Your task to perform on an android device: delete the emails in spam in the gmail app Image 0: 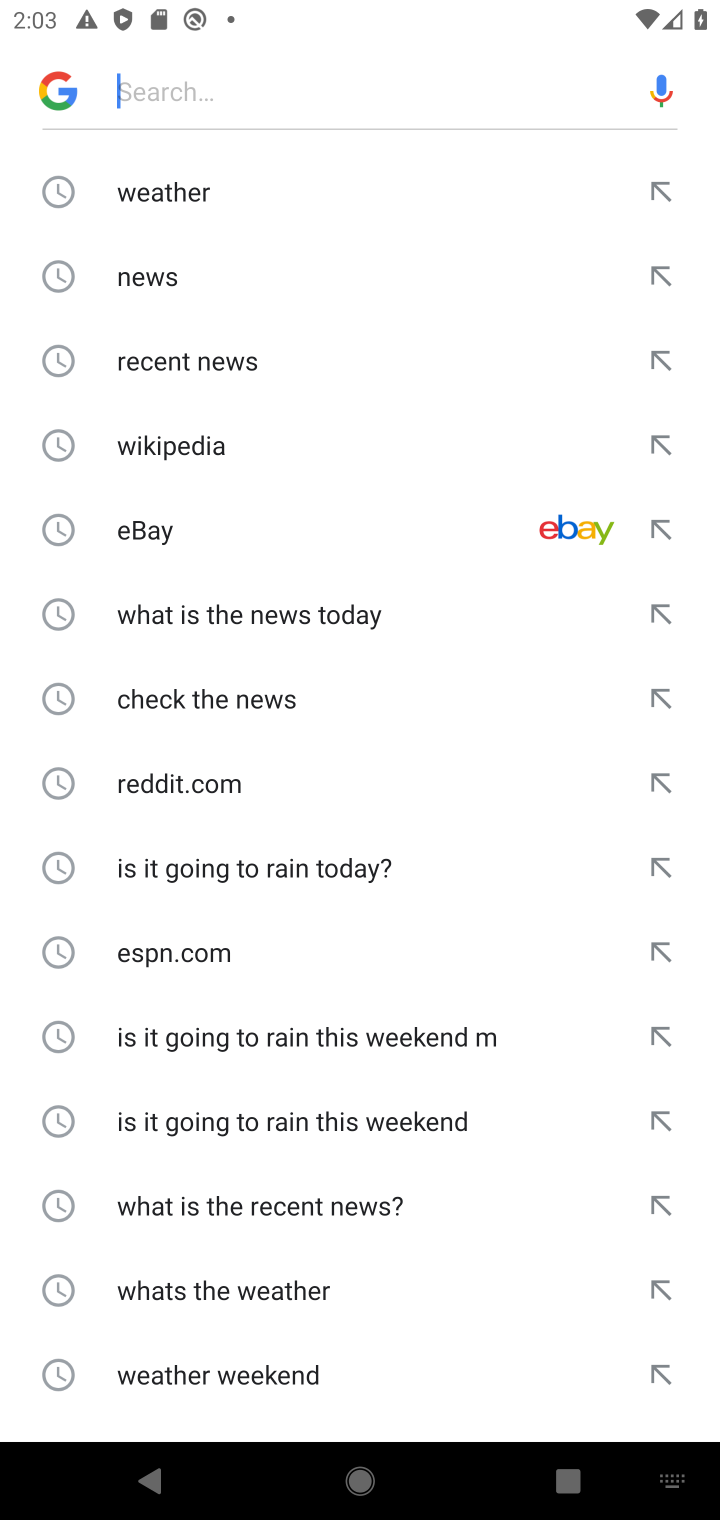
Step 0: press back button
Your task to perform on an android device: delete the emails in spam in the gmail app Image 1: 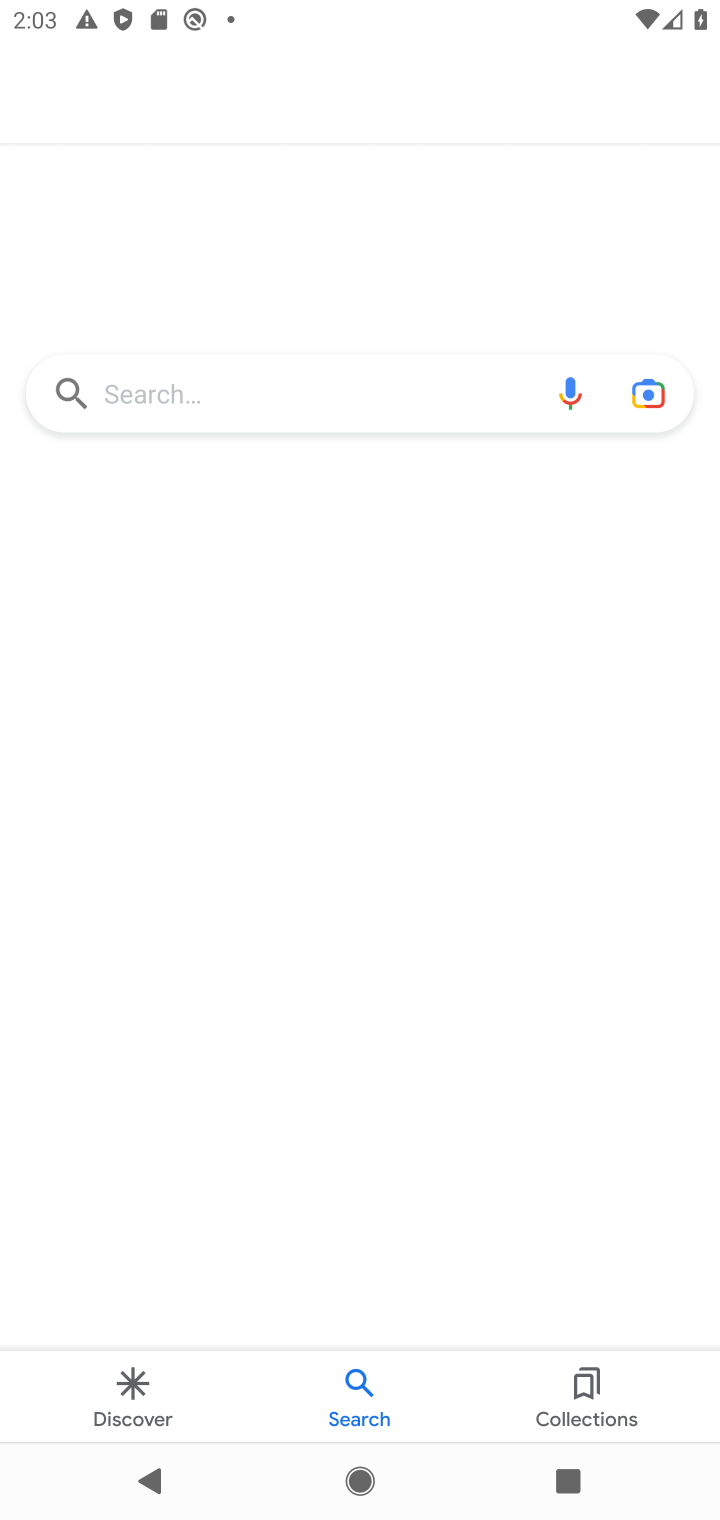
Step 1: click (235, 375)
Your task to perform on an android device: delete the emails in spam in the gmail app Image 2: 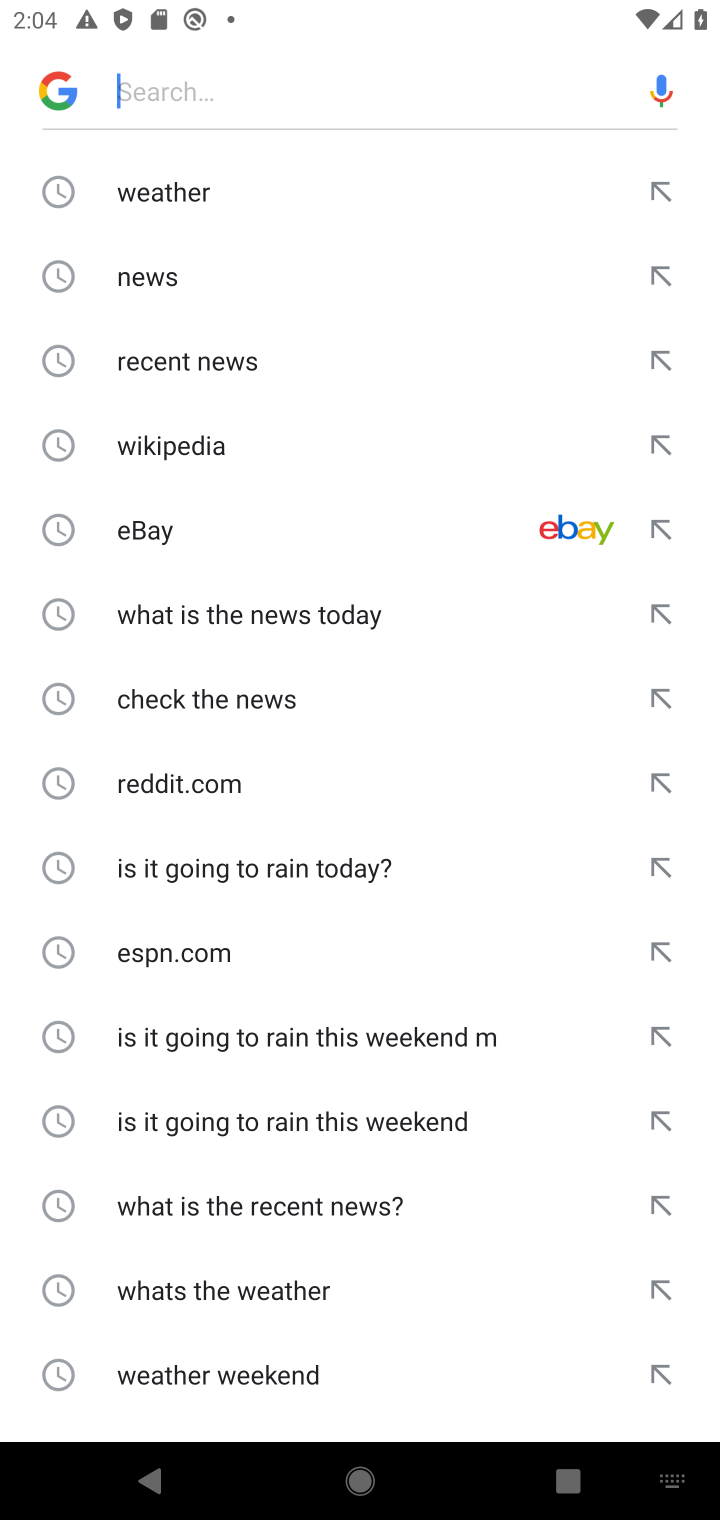
Step 2: press back button
Your task to perform on an android device: delete the emails in spam in the gmail app Image 3: 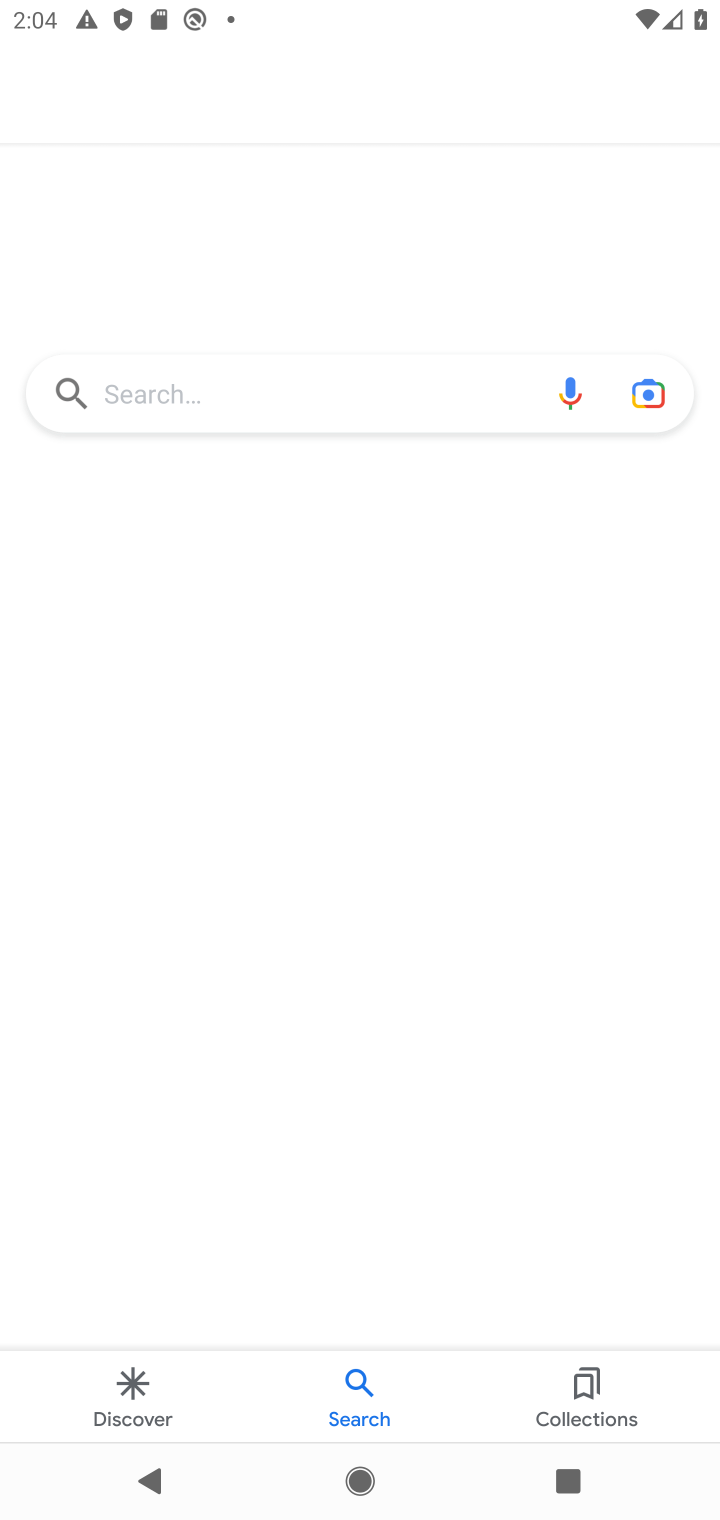
Step 3: press back button
Your task to perform on an android device: delete the emails in spam in the gmail app Image 4: 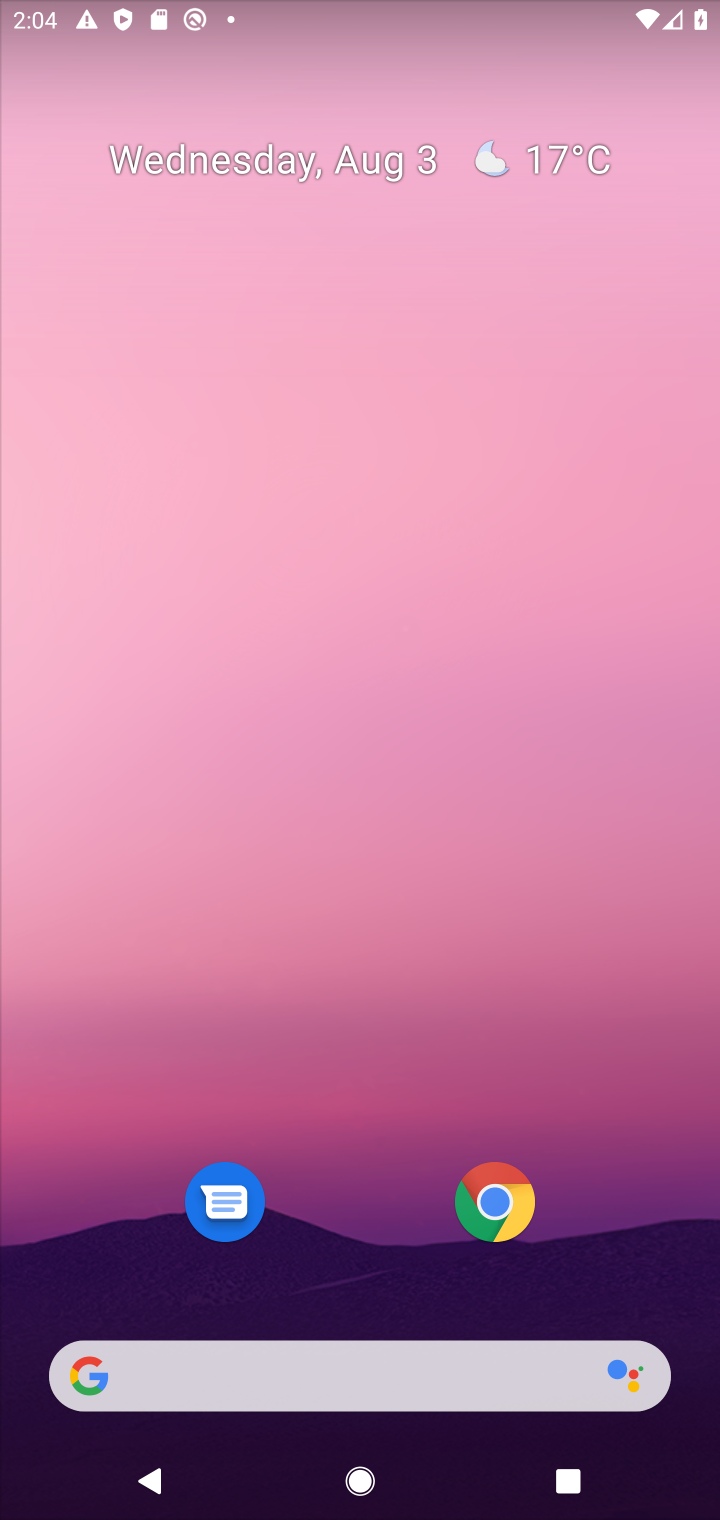
Step 4: drag from (350, 1325) to (442, 20)
Your task to perform on an android device: delete the emails in spam in the gmail app Image 5: 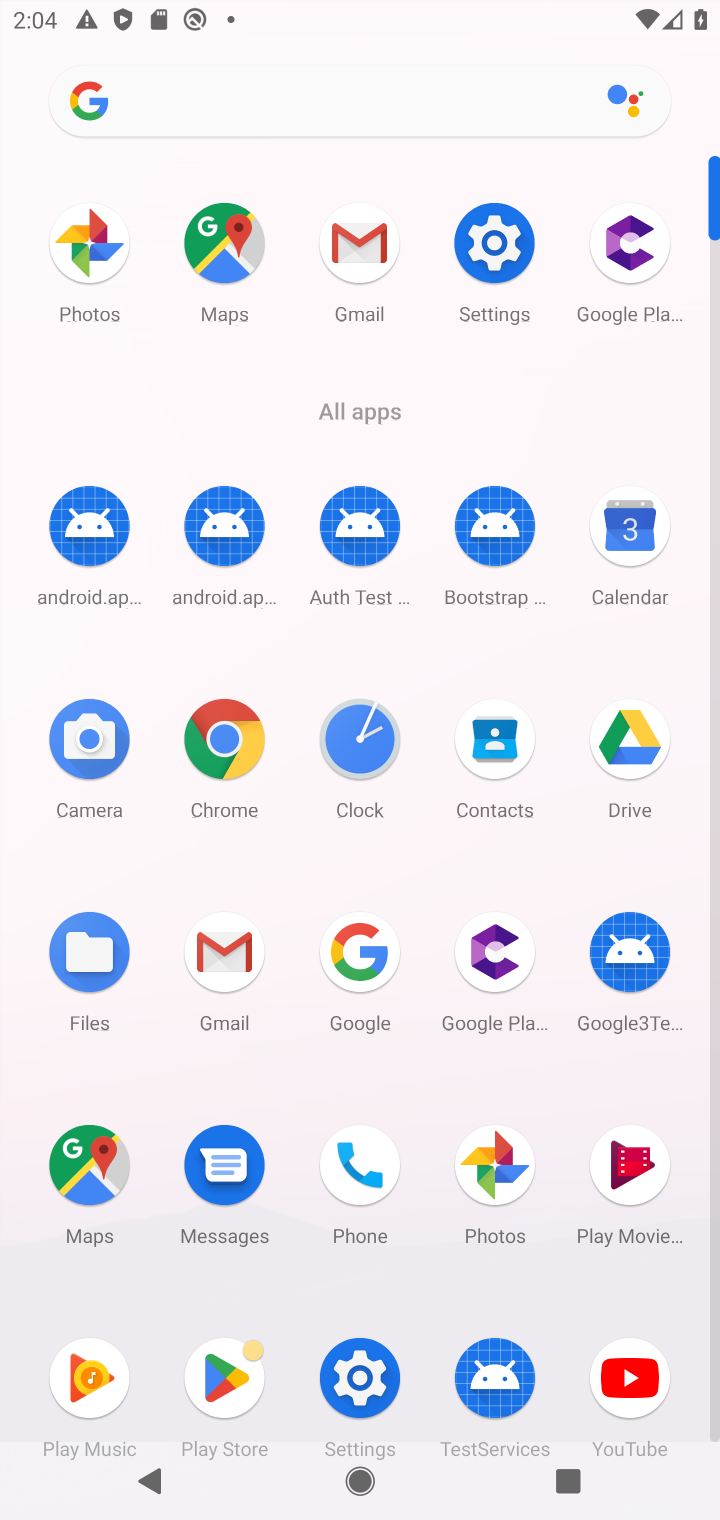
Step 5: click (369, 237)
Your task to perform on an android device: delete the emails in spam in the gmail app Image 6: 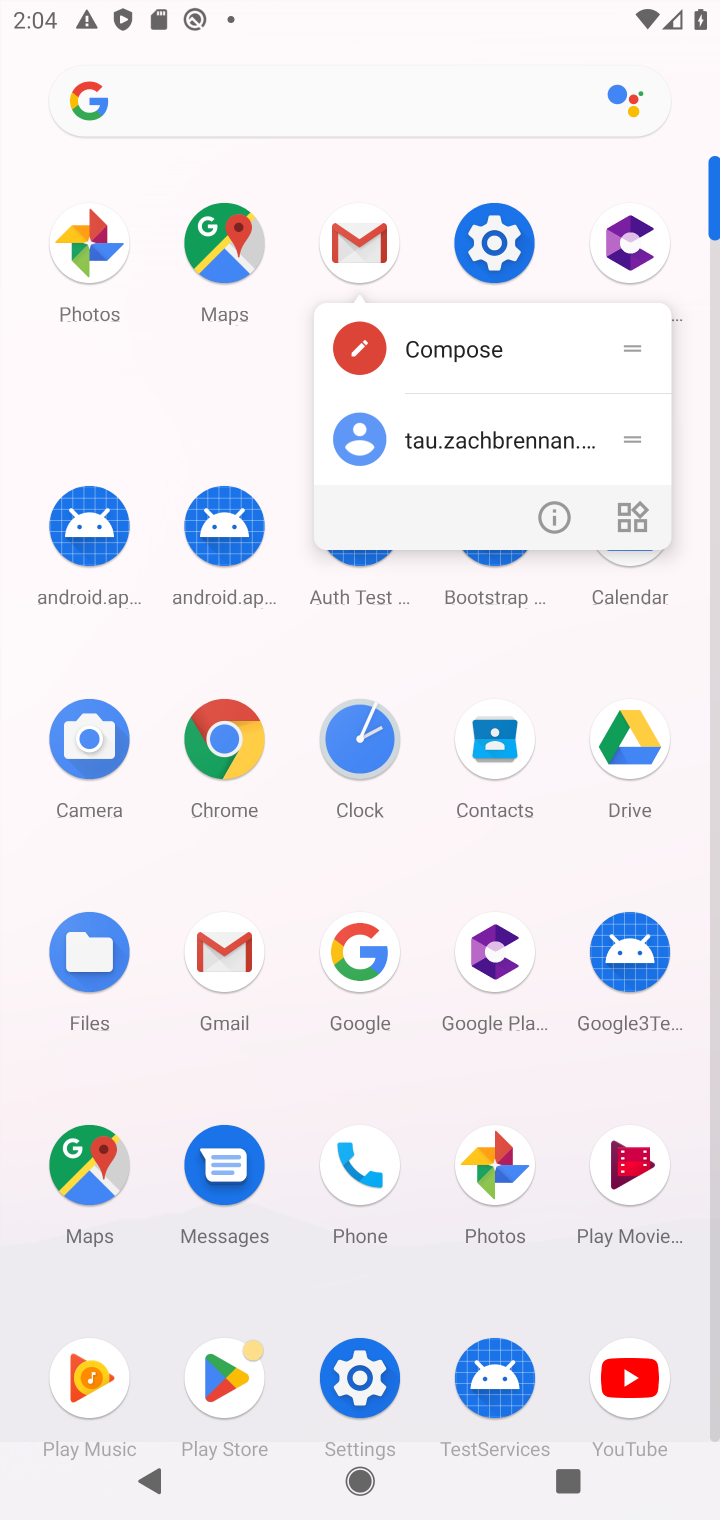
Step 6: click (369, 237)
Your task to perform on an android device: delete the emails in spam in the gmail app Image 7: 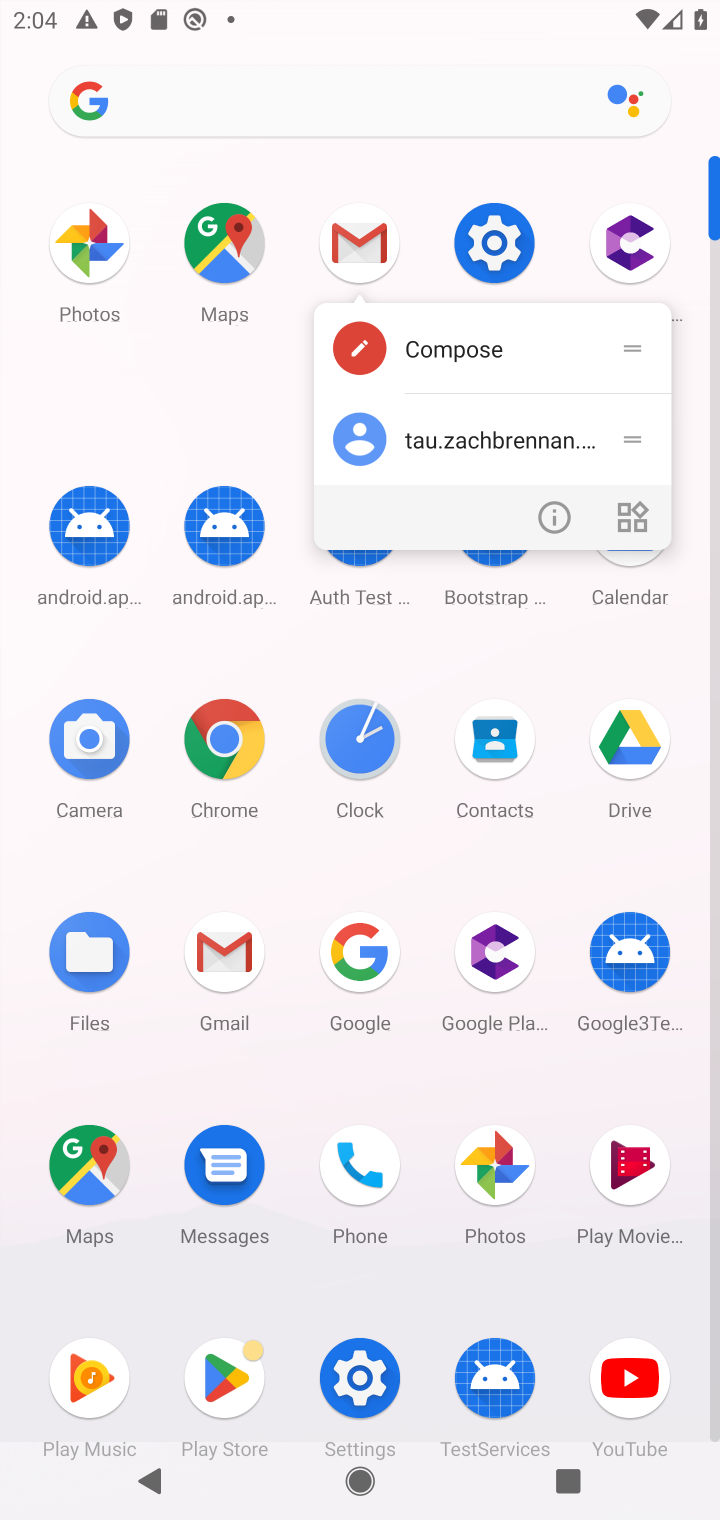
Step 7: click (333, 231)
Your task to perform on an android device: delete the emails in spam in the gmail app Image 8: 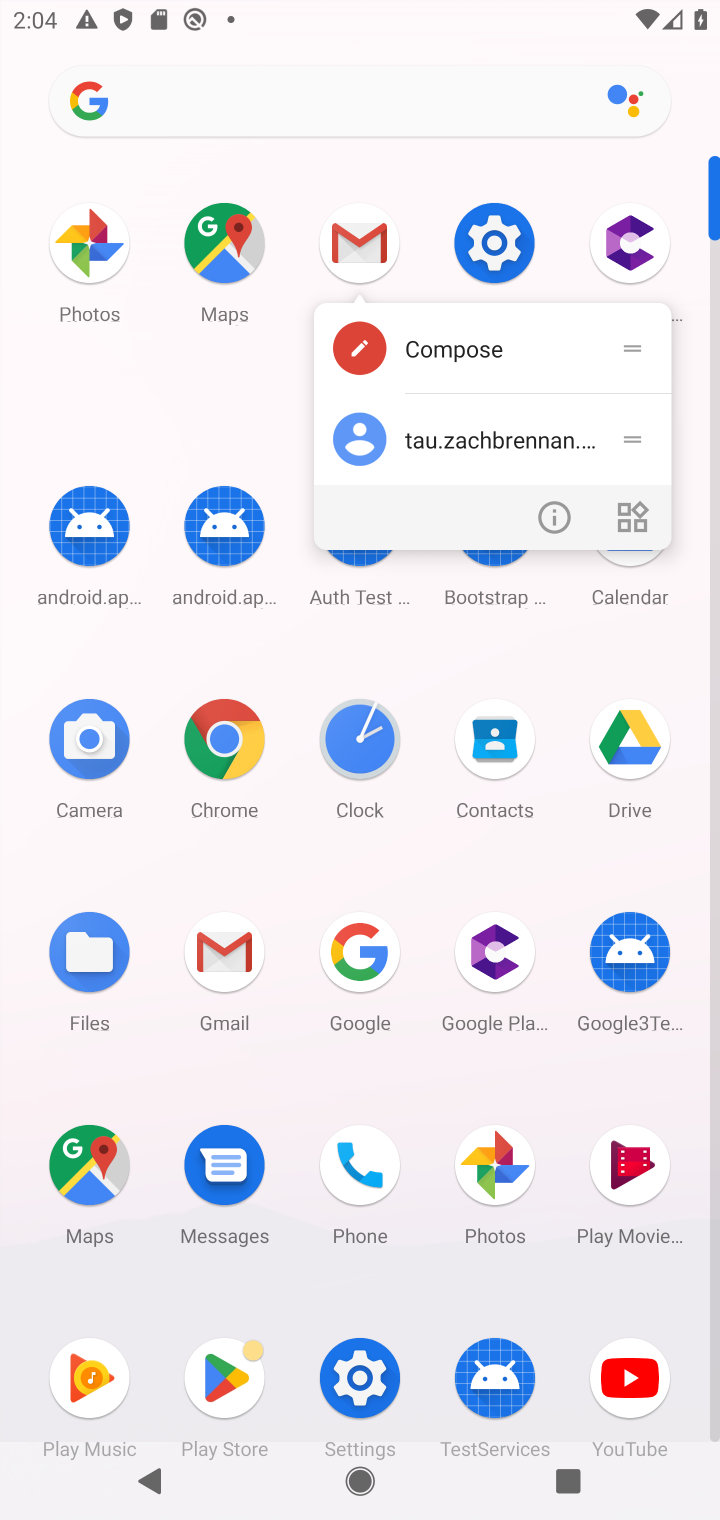
Step 8: click (361, 252)
Your task to perform on an android device: delete the emails in spam in the gmail app Image 9: 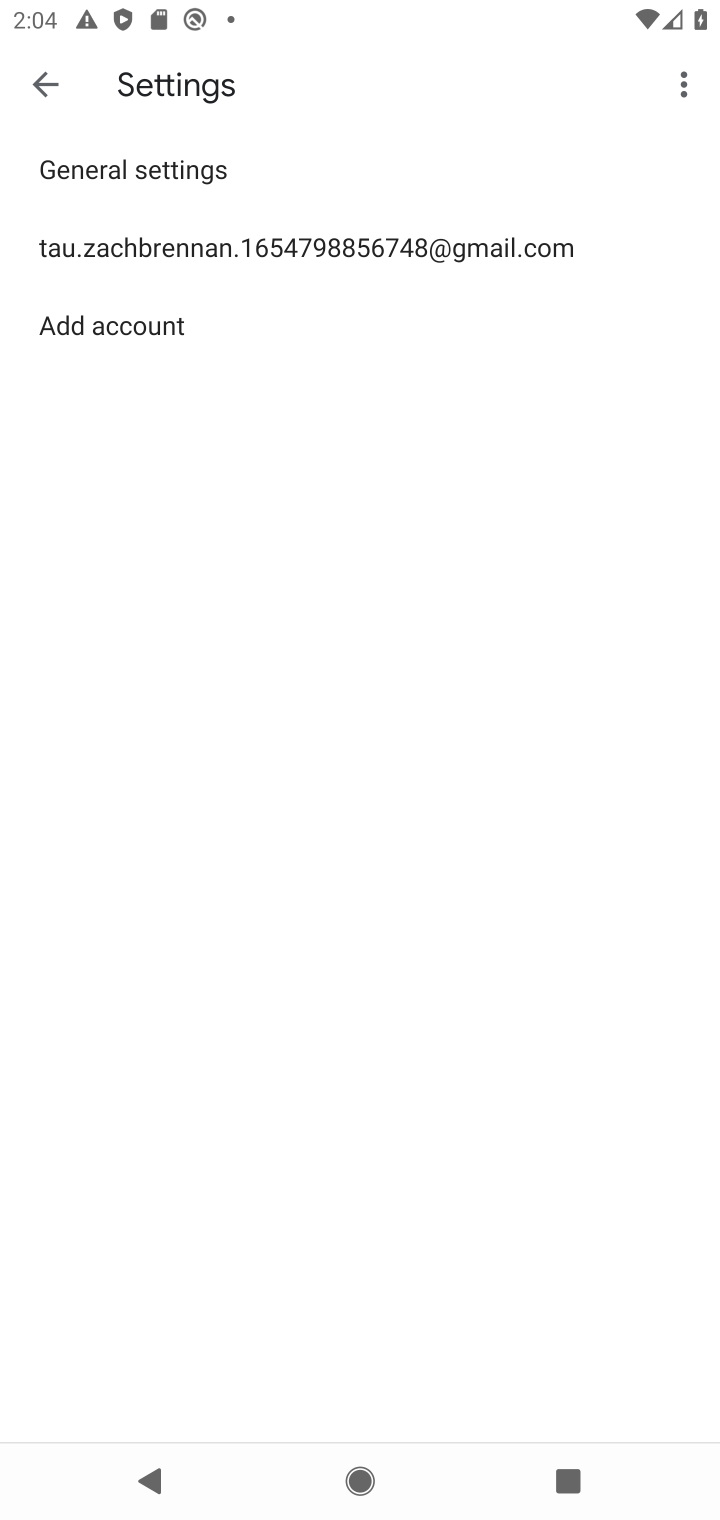
Step 9: click (22, 72)
Your task to perform on an android device: delete the emails in spam in the gmail app Image 10: 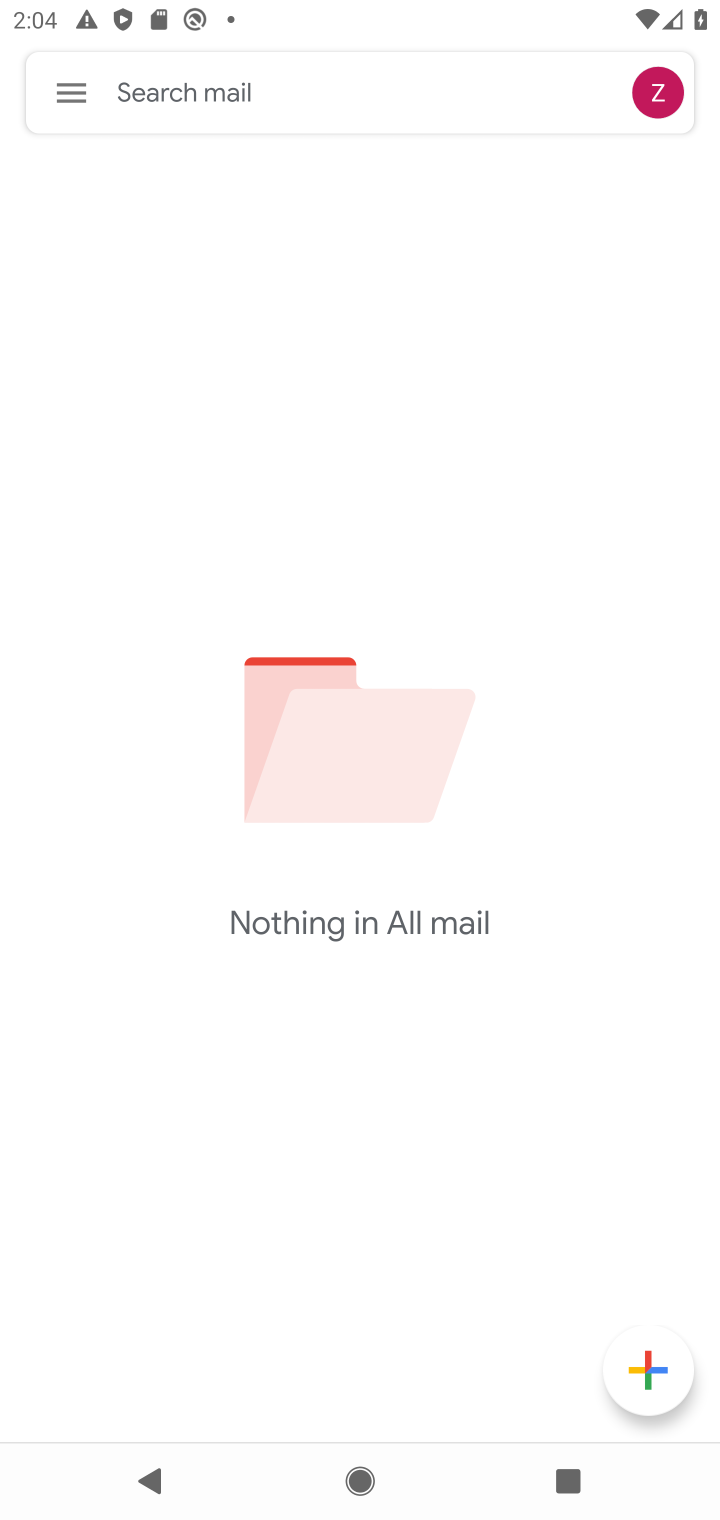
Step 10: click (63, 93)
Your task to perform on an android device: delete the emails in spam in the gmail app Image 11: 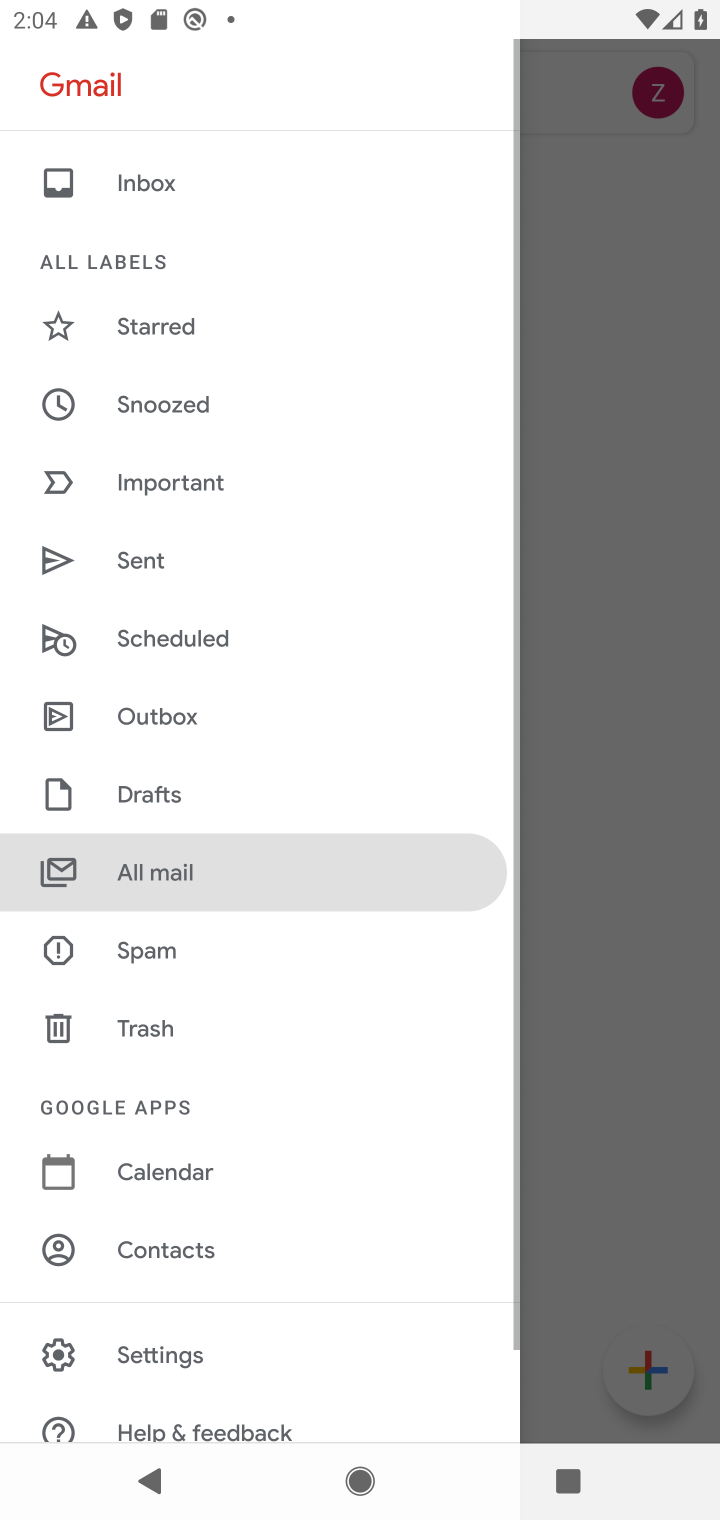
Step 11: click (176, 965)
Your task to perform on an android device: delete the emails in spam in the gmail app Image 12: 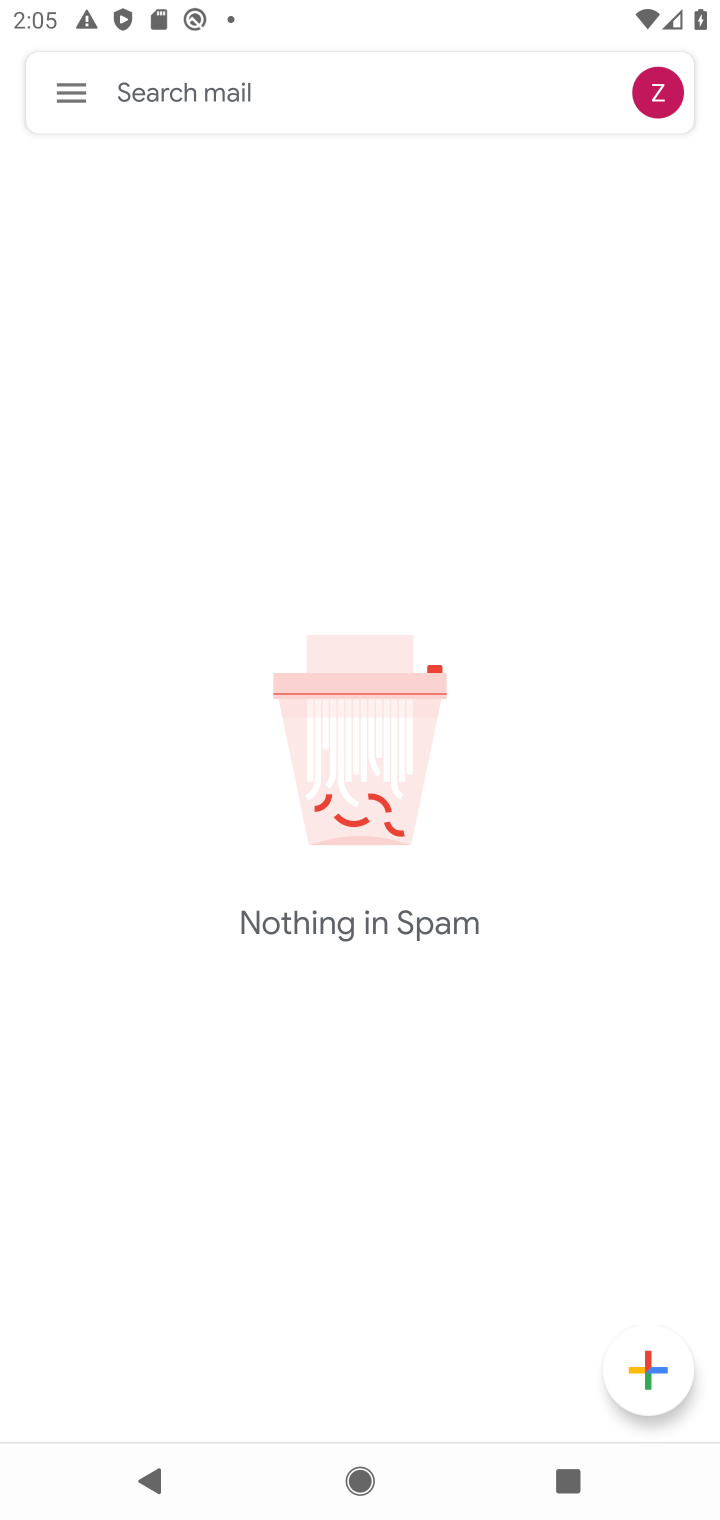
Step 12: task complete